Your task to perform on an android device: delete the emails in spam in the gmail app Image 0: 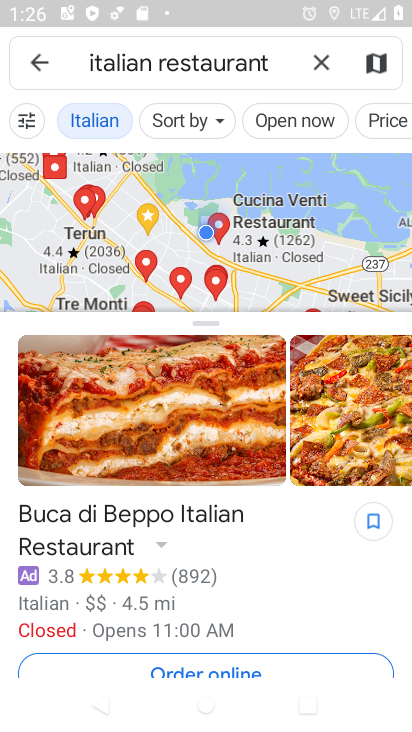
Step 0: press home button
Your task to perform on an android device: delete the emails in spam in the gmail app Image 1: 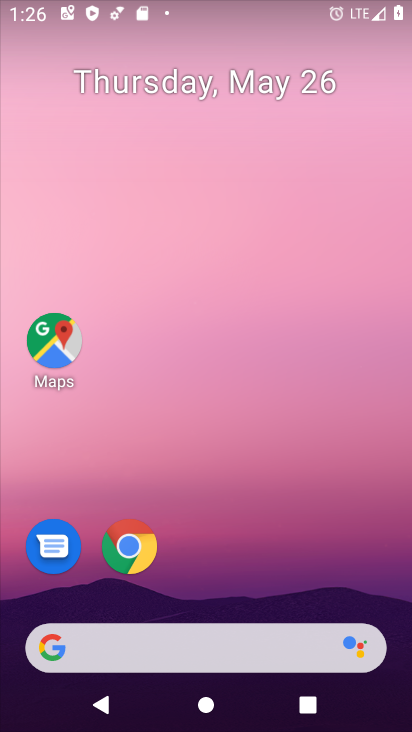
Step 1: drag from (395, 659) to (248, 96)
Your task to perform on an android device: delete the emails in spam in the gmail app Image 2: 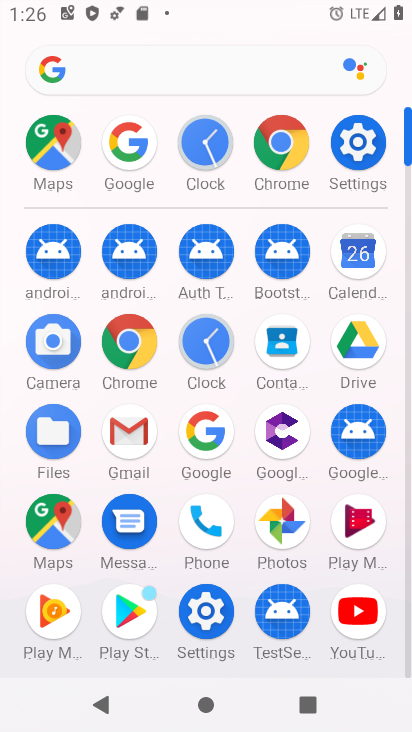
Step 2: click (131, 441)
Your task to perform on an android device: delete the emails in spam in the gmail app Image 3: 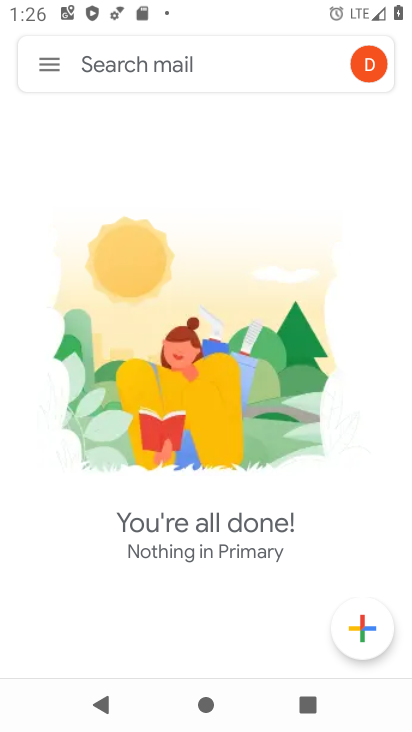
Step 3: click (37, 60)
Your task to perform on an android device: delete the emails in spam in the gmail app Image 4: 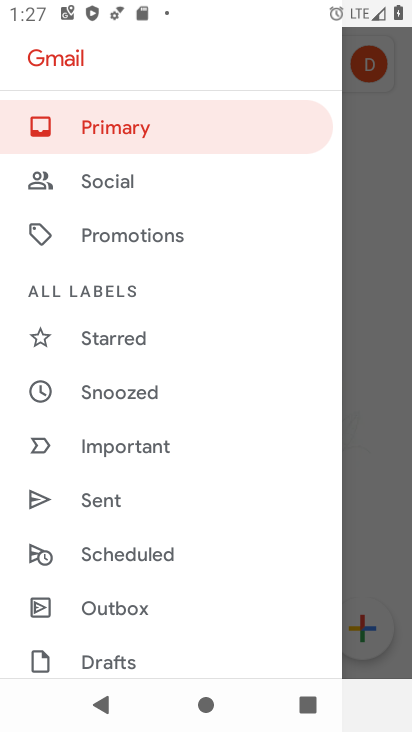
Step 4: drag from (163, 659) to (194, 147)
Your task to perform on an android device: delete the emails in spam in the gmail app Image 5: 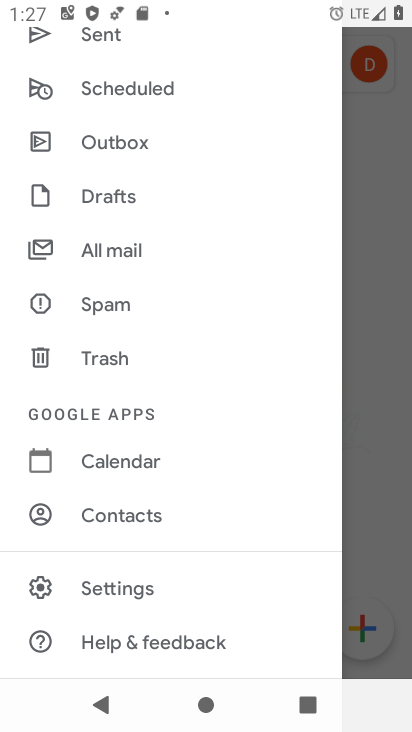
Step 5: click (156, 307)
Your task to perform on an android device: delete the emails in spam in the gmail app Image 6: 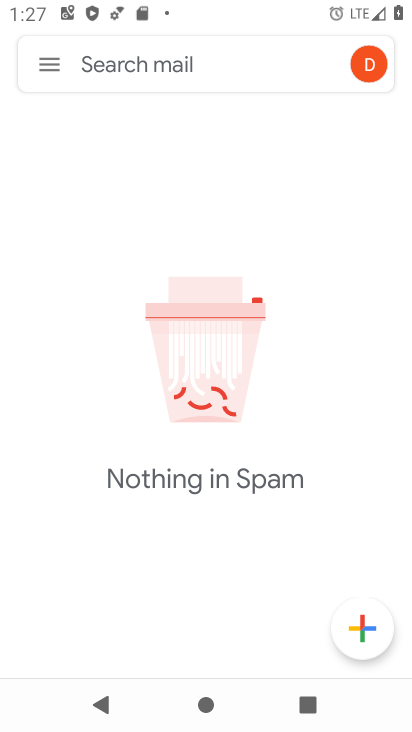
Step 6: task complete